Your task to perform on an android device: Go to ESPN.com Image 0: 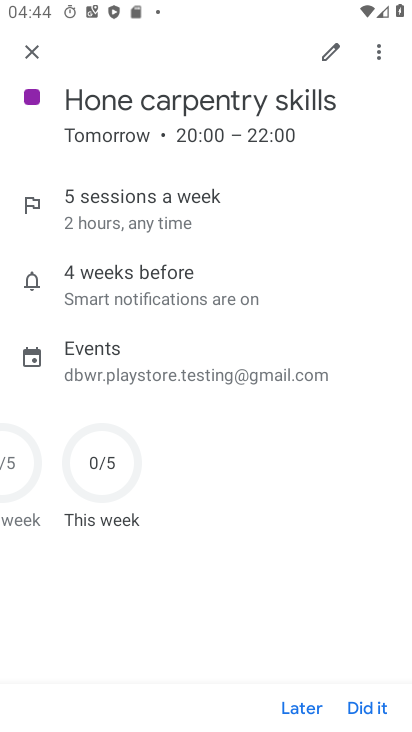
Step 0: press home button
Your task to perform on an android device: Go to ESPN.com Image 1: 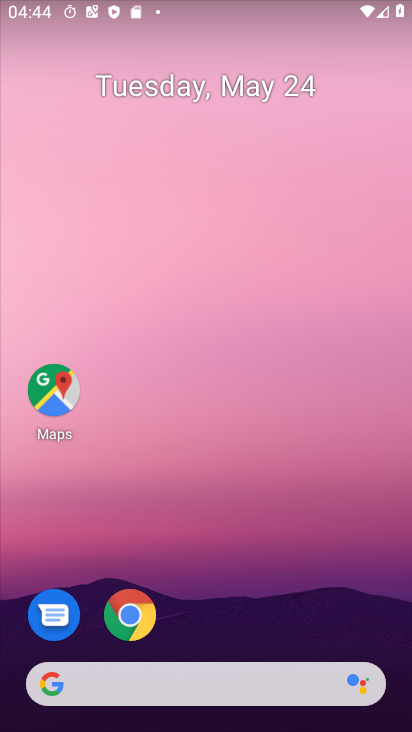
Step 1: click (136, 619)
Your task to perform on an android device: Go to ESPN.com Image 2: 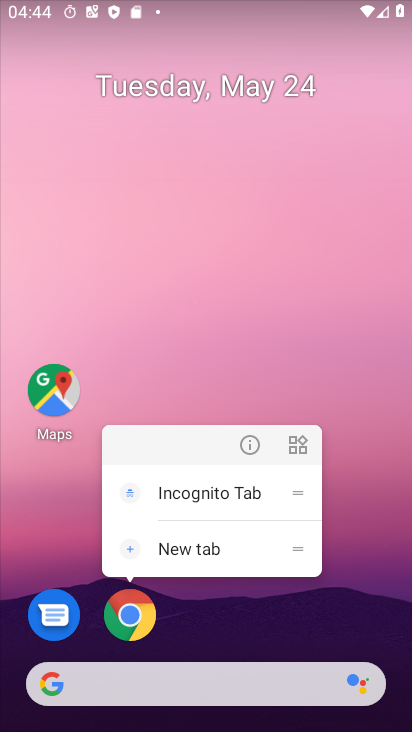
Step 2: click (129, 609)
Your task to perform on an android device: Go to ESPN.com Image 3: 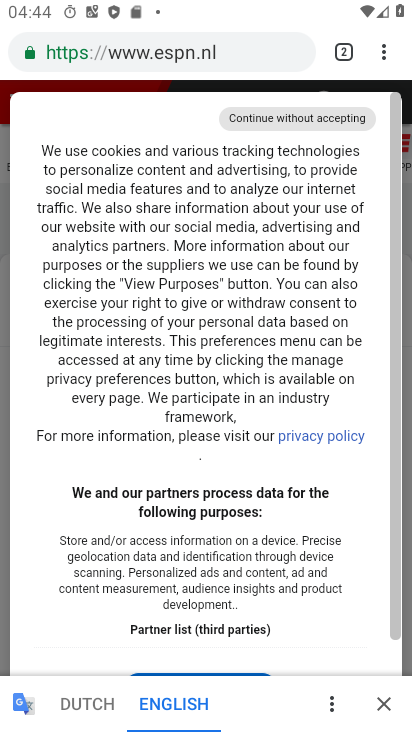
Step 3: task complete